Your task to perform on an android device: change text size in settings app Image 0: 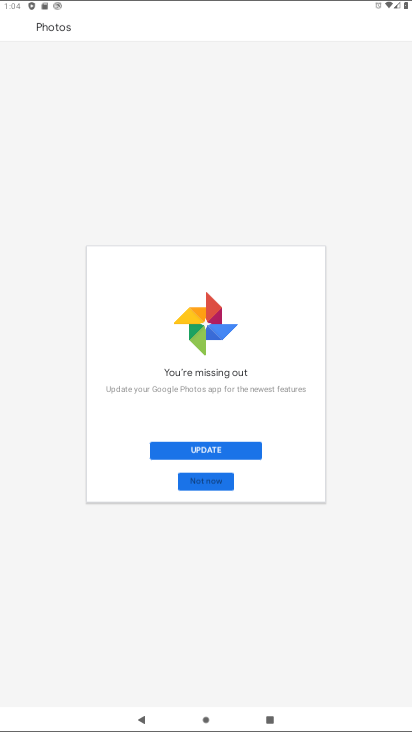
Step 0: press home button
Your task to perform on an android device: change text size in settings app Image 1: 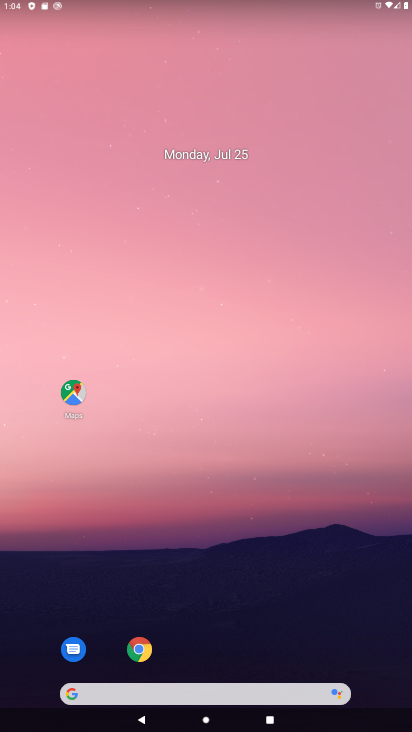
Step 1: drag from (272, 527) to (238, 18)
Your task to perform on an android device: change text size in settings app Image 2: 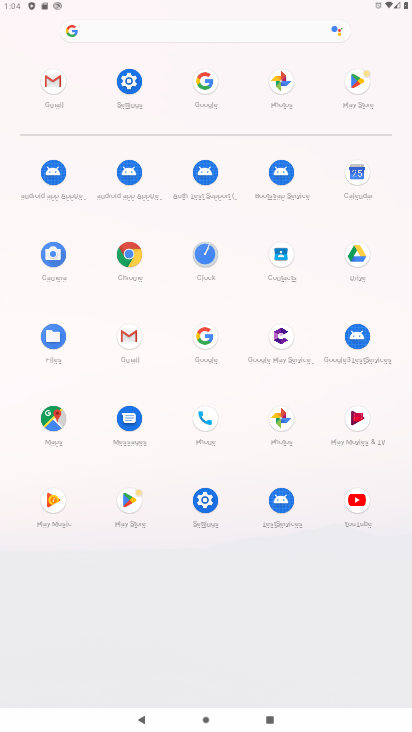
Step 2: click (130, 85)
Your task to perform on an android device: change text size in settings app Image 3: 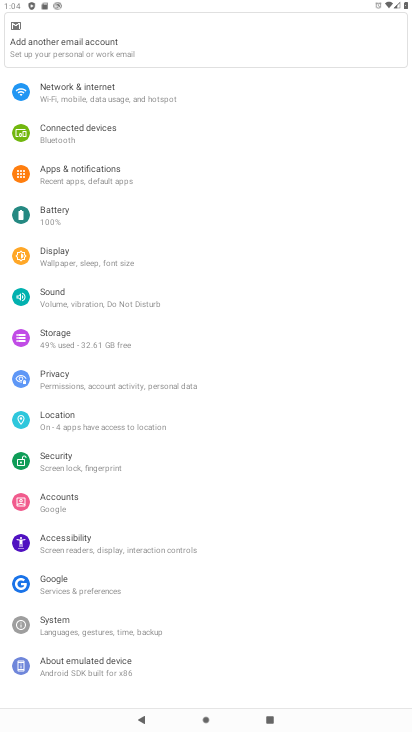
Step 3: click (82, 260)
Your task to perform on an android device: change text size in settings app Image 4: 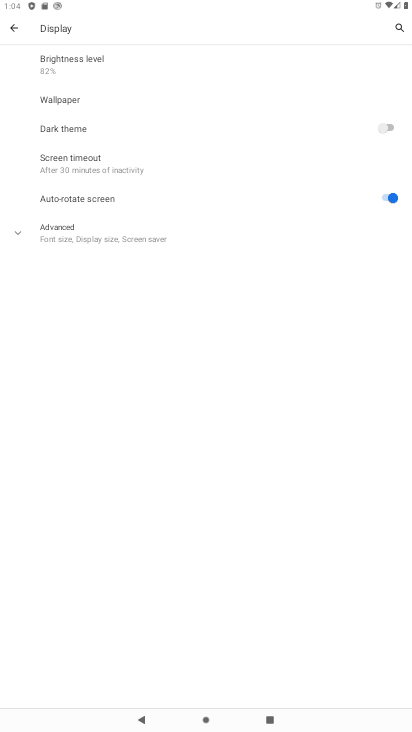
Step 4: click (22, 231)
Your task to perform on an android device: change text size in settings app Image 5: 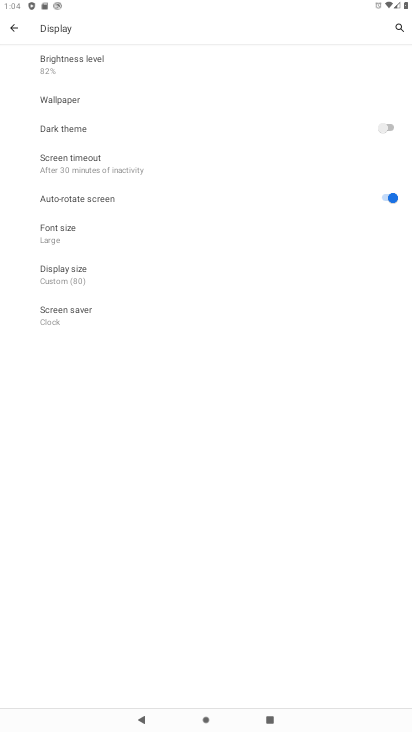
Step 5: click (71, 270)
Your task to perform on an android device: change text size in settings app Image 6: 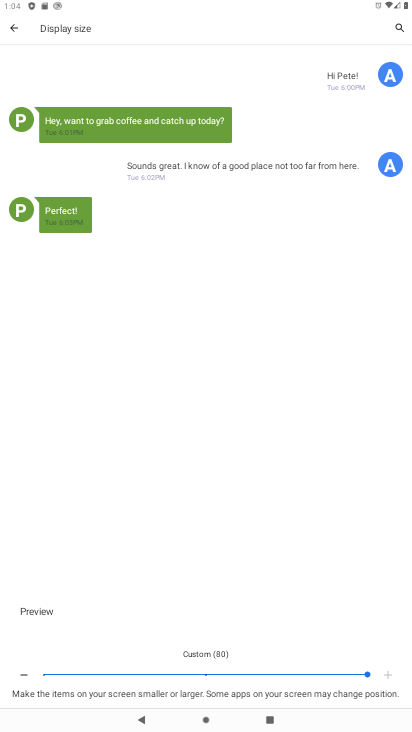
Step 6: click (387, 672)
Your task to perform on an android device: change text size in settings app Image 7: 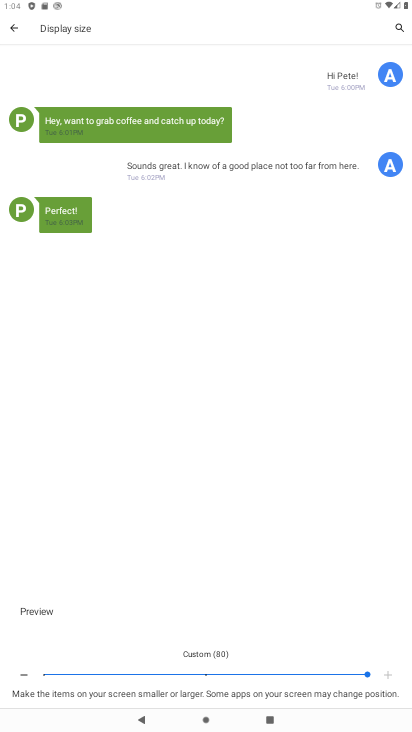
Step 7: drag from (367, 671) to (400, 649)
Your task to perform on an android device: change text size in settings app Image 8: 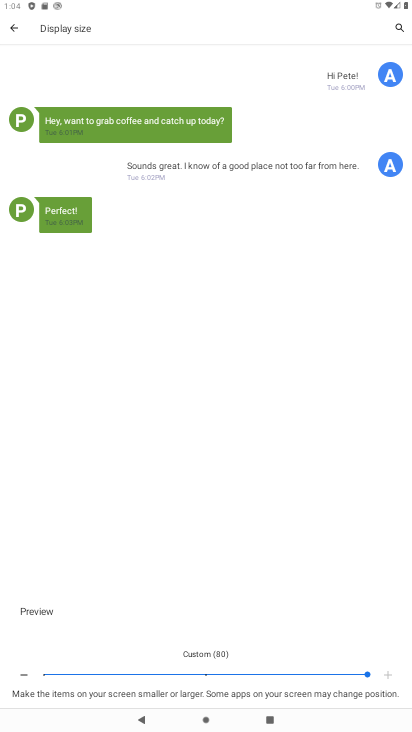
Step 8: click (287, 670)
Your task to perform on an android device: change text size in settings app Image 9: 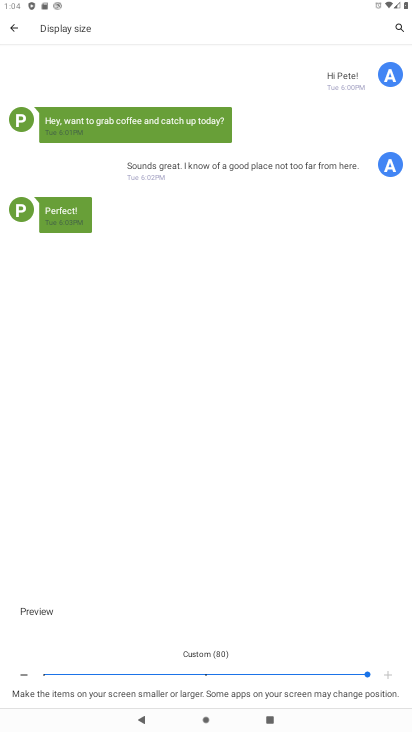
Step 9: drag from (365, 671) to (214, 671)
Your task to perform on an android device: change text size in settings app Image 10: 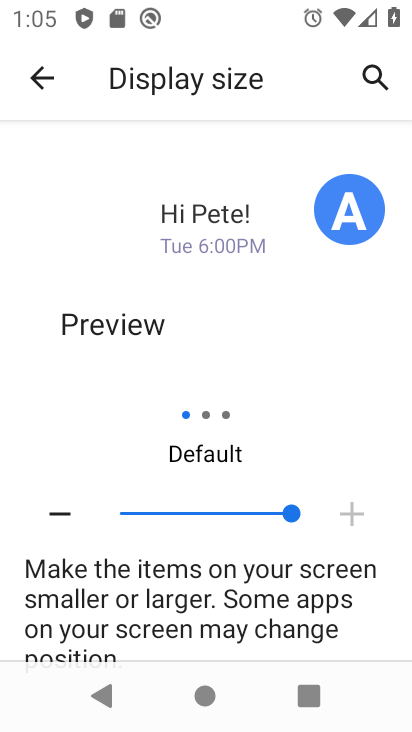
Step 10: drag from (289, 511) to (229, 496)
Your task to perform on an android device: change text size in settings app Image 11: 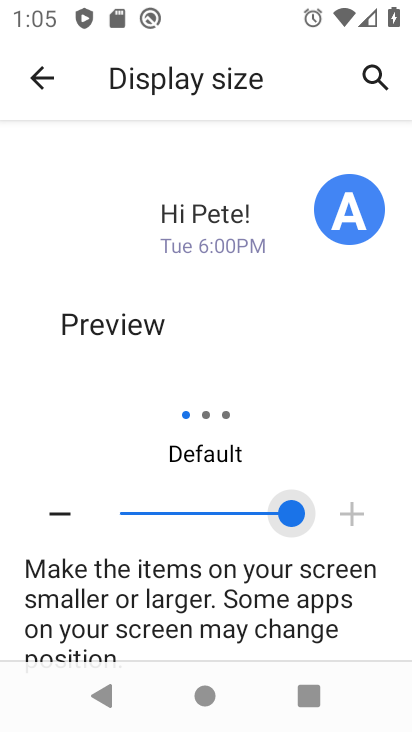
Step 11: drag from (292, 515) to (248, 519)
Your task to perform on an android device: change text size in settings app Image 12: 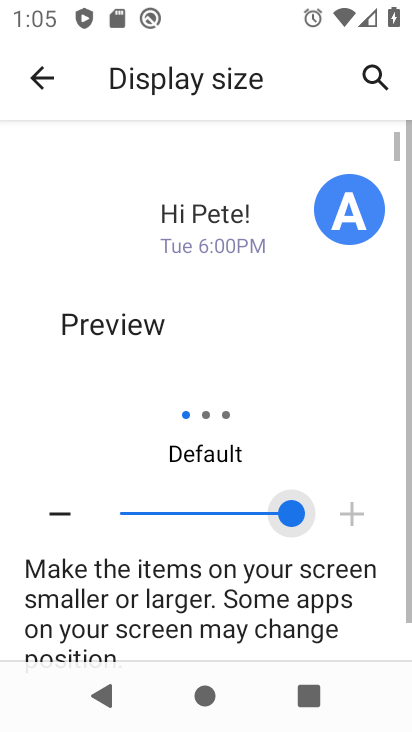
Step 12: click (241, 509)
Your task to perform on an android device: change text size in settings app Image 13: 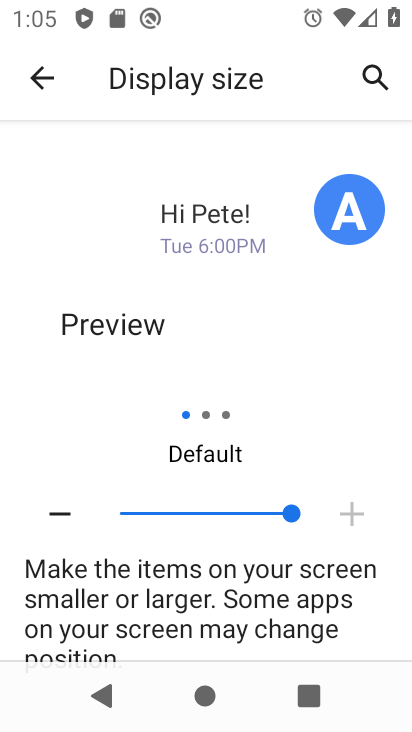
Step 13: click (238, 516)
Your task to perform on an android device: change text size in settings app Image 14: 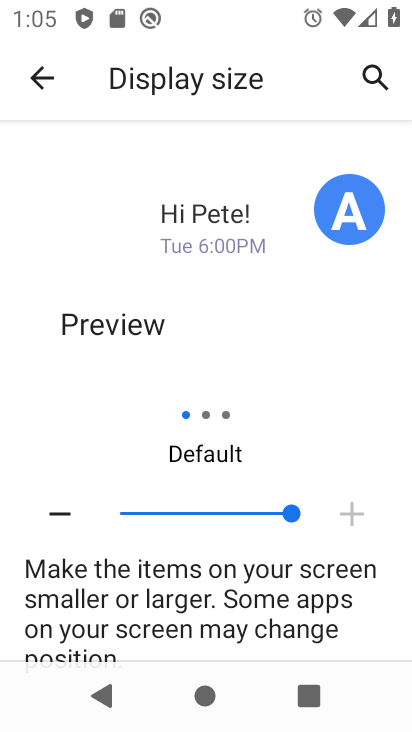
Step 14: click (68, 509)
Your task to perform on an android device: change text size in settings app Image 15: 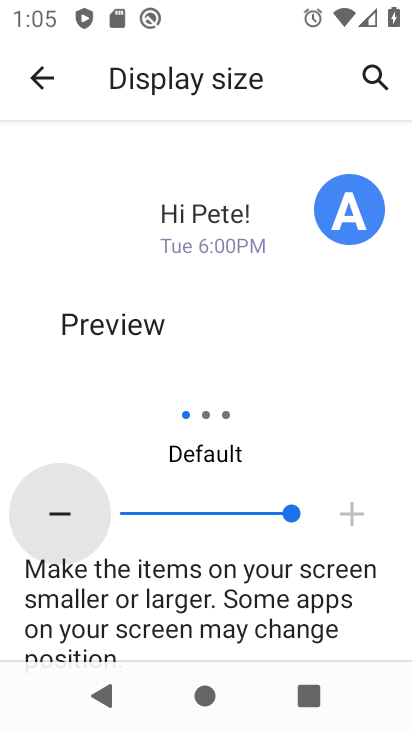
Step 15: click (64, 511)
Your task to perform on an android device: change text size in settings app Image 16: 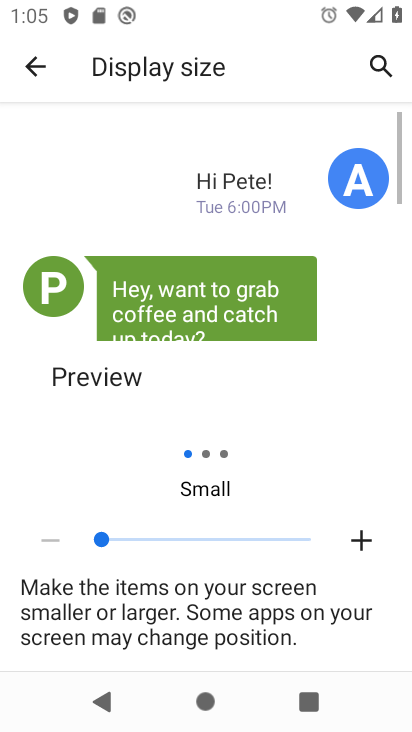
Step 16: click (290, 506)
Your task to perform on an android device: change text size in settings app Image 17: 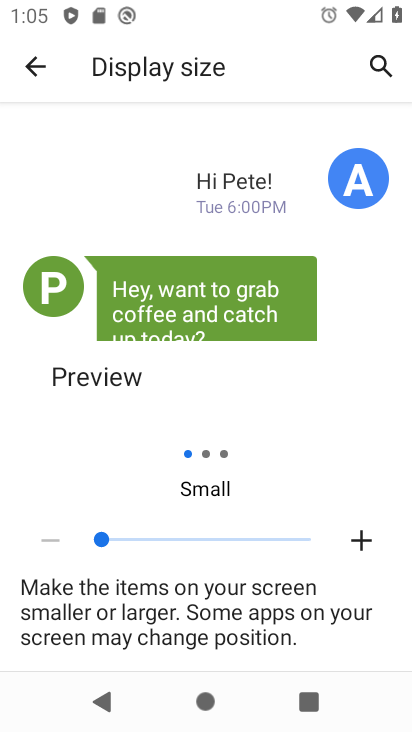
Step 17: click (247, 536)
Your task to perform on an android device: change text size in settings app Image 18: 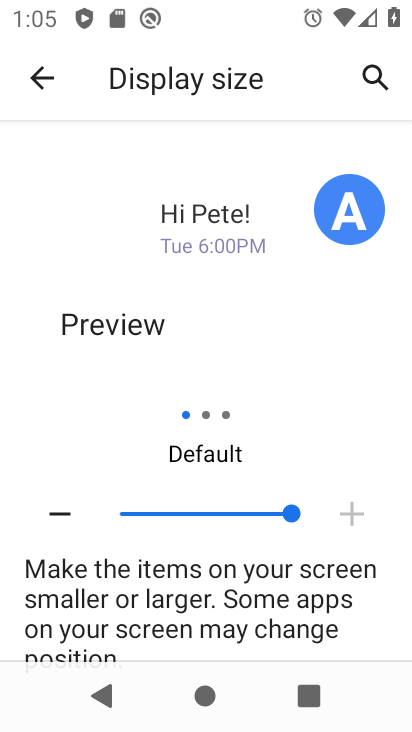
Step 18: task complete